Your task to perform on an android device: turn on airplane mode Image 0: 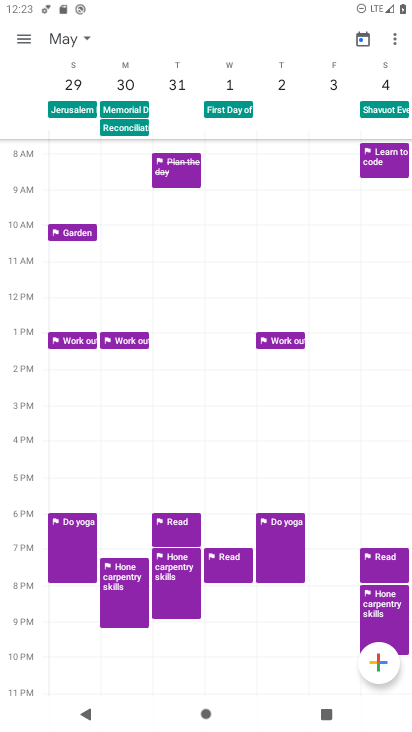
Step 0: press home button
Your task to perform on an android device: turn on airplane mode Image 1: 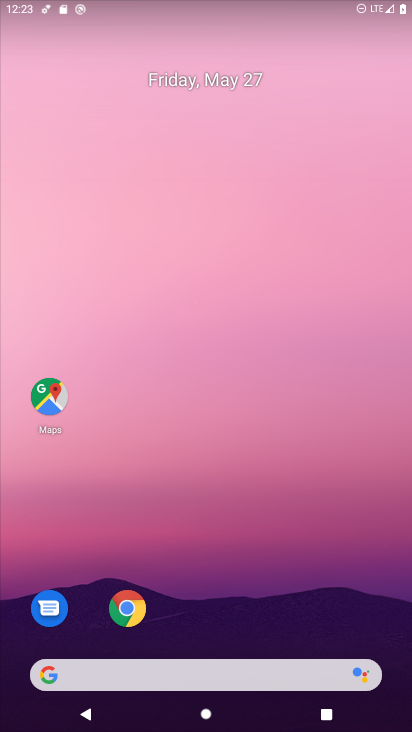
Step 1: drag from (153, 667) to (293, 95)
Your task to perform on an android device: turn on airplane mode Image 2: 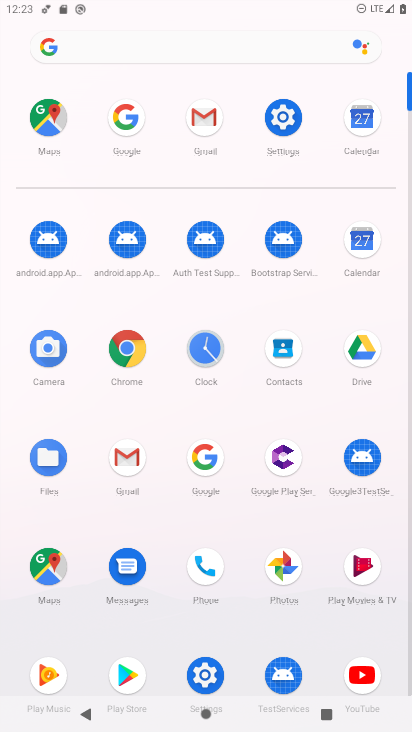
Step 2: click (282, 116)
Your task to perform on an android device: turn on airplane mode Image 3: 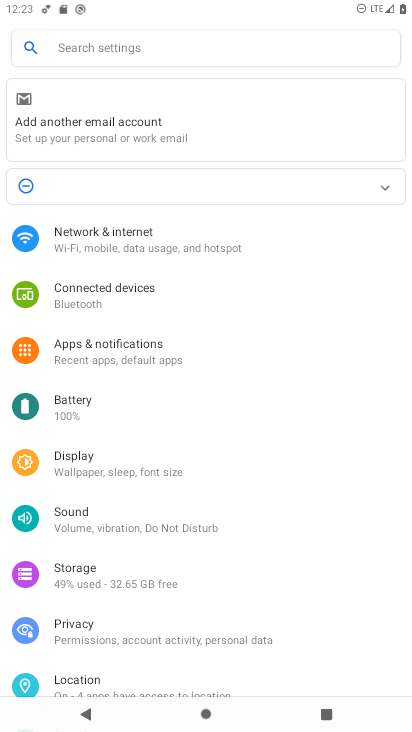
Step 3: click (241, 237)
Your task to perform on an android device: turn on airplane mode Image 4: 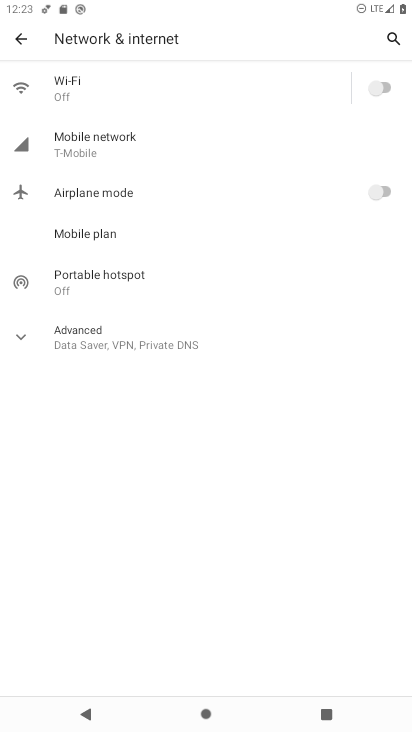
Step 4: click (384, 190)
Your task to perform on an android device: turn on airplane mode Image 5: 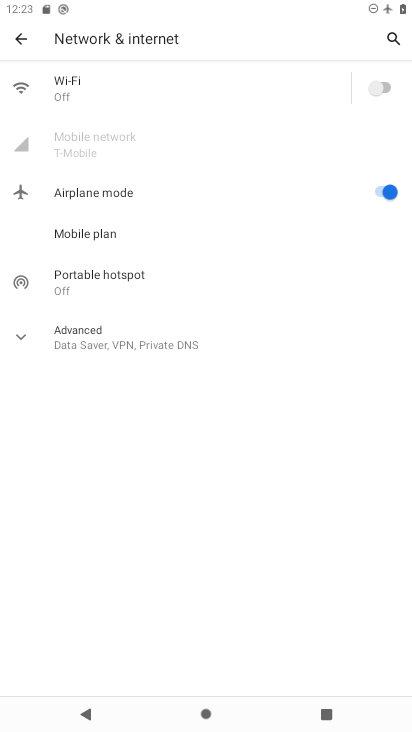
Step 5: task complete